Your task to perform on an android device: delete location history Image 0: 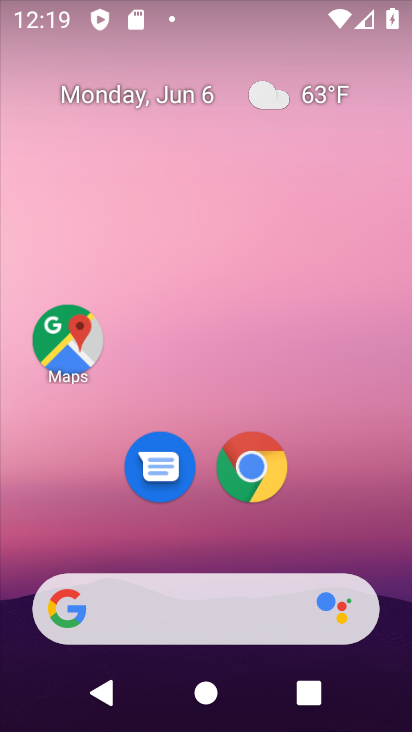
Step 0: drag from (394, 629) to (225, 39)
Your task to perform on an android device: delete location history Image 1: 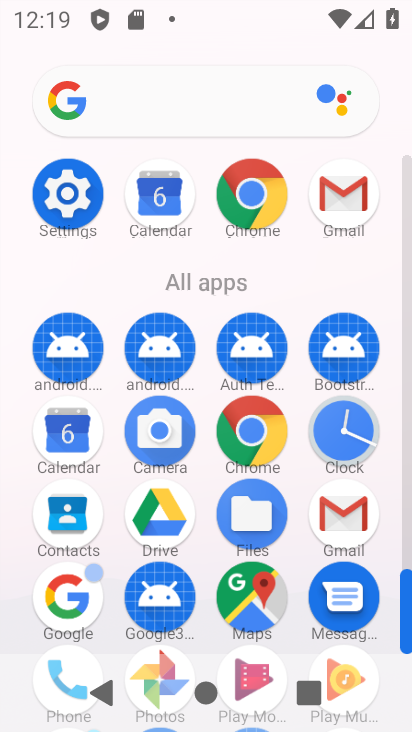
Step 1: click (71, 198)
Your task to perform on an android device: delete location history Image 2: 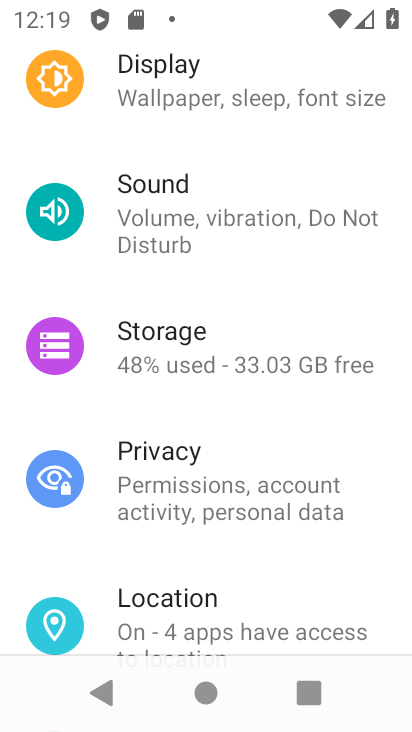
Step 2: click (194, 601)
Your task to perform on an android device: delete location history Image 3: 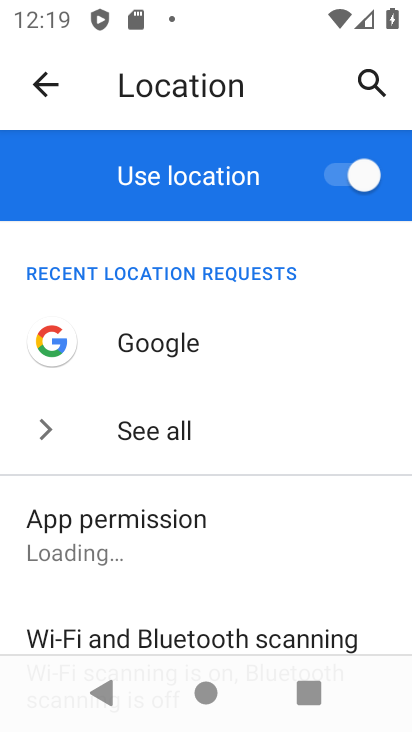
Step 3: drag from (180, 614) to (171, 177)
Your task to perform on an android device: delete location history Image 4: 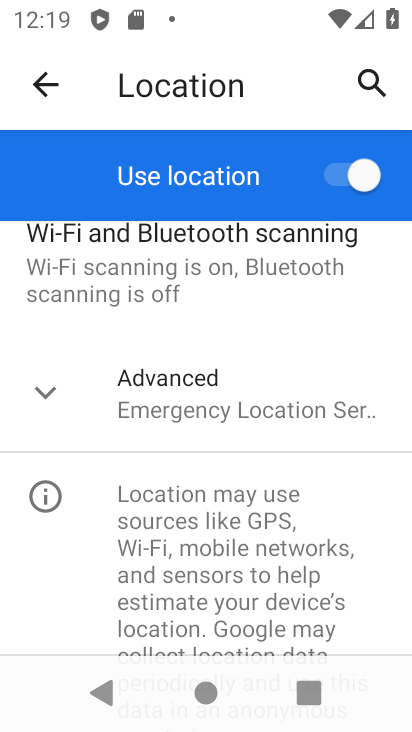
Step 4: click (42, 404)
Your task to perform on an android device: delete location history Image 5: 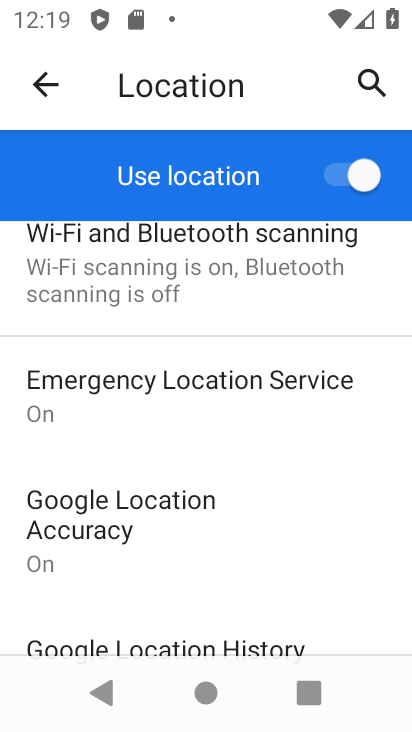
Step 5: drag from (190, 622) to (185, 300)
Your task to perform on an android device: delete location history Image 6: 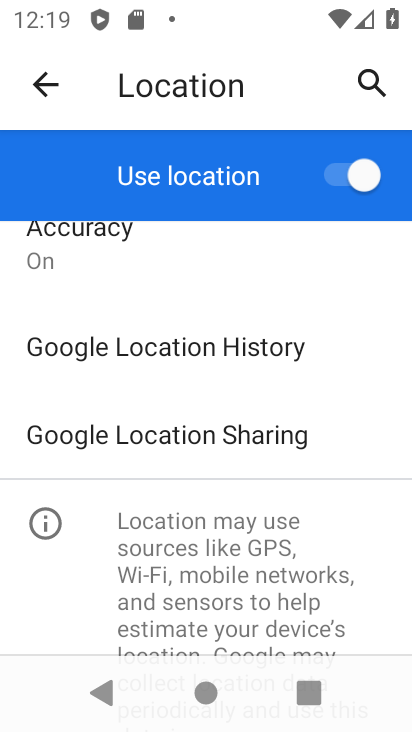
Step 6: click (157, 351)
Your task to perform on an android device: delete location history Image 7: 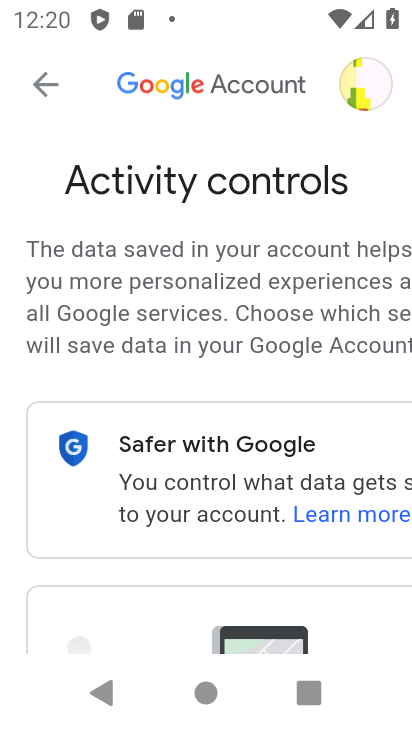
Step 7: drag from (321, 628) to (236, 119)
Your task to perform on an android device: delete location history Image 8: 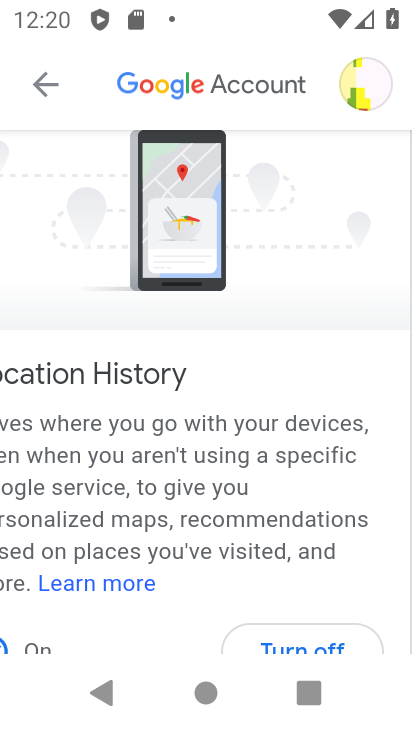
Step 8: drag from (254, 508) to (272, 196)
Your task to perform on an android device: delete location history Image 9: 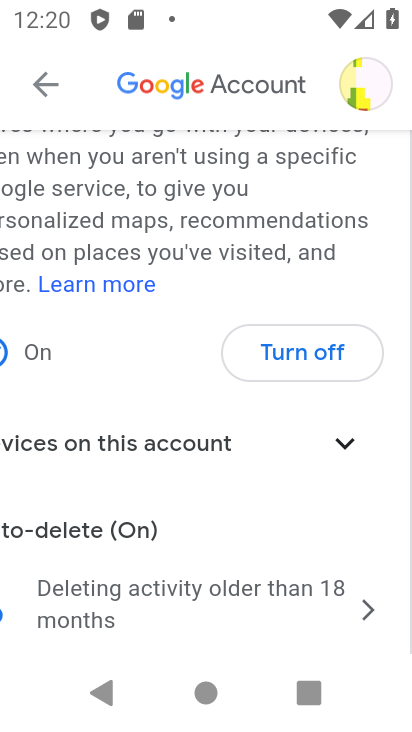
Step 9: click (159, 573)
Your task to perform on an android device: delete location history Image 10: 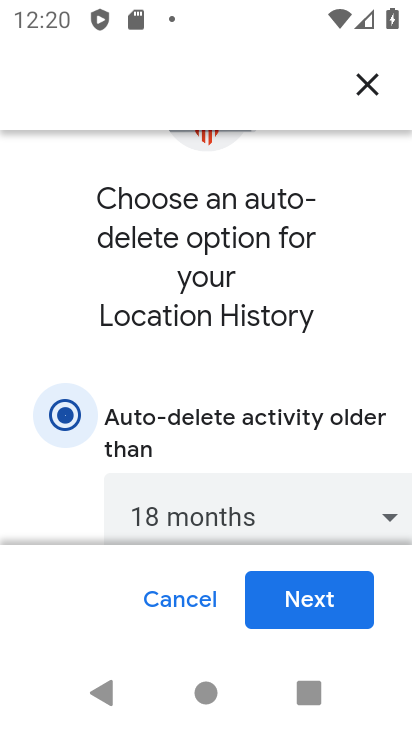
Step 10: click (302, 610)
Your task to perform on an android device: delete location history Image 11: 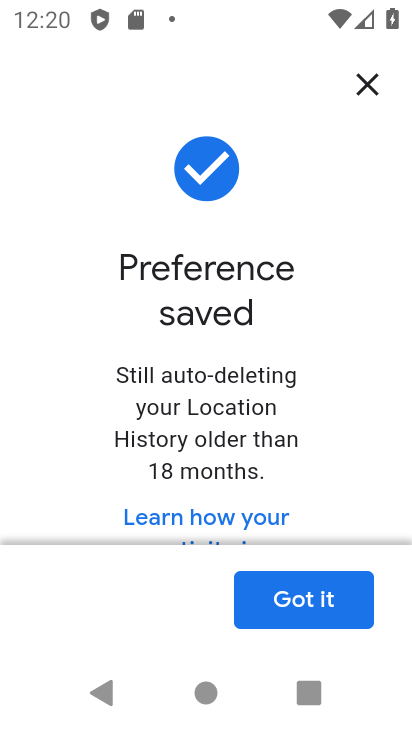
Step 11: task complete